Your task to perform on an android device: Open the calendar app, open the side menu, and click the "Day" option Image 0: 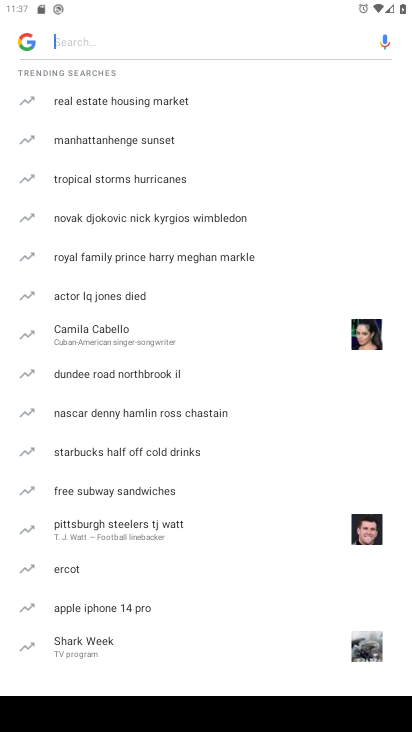
Step 0: press home button
Your task to perform on an android device: Open the calendar app, open the side menu, and click the "Day" option Image 1: 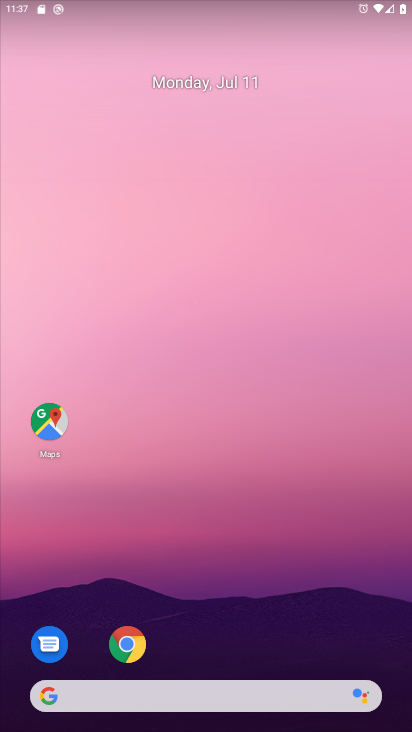
Step 1: drag from (273, 613) to (262, 108)
Your task to perform on an android device: Open the calendar app, open the side menu, and click the "Day" option Image 2: 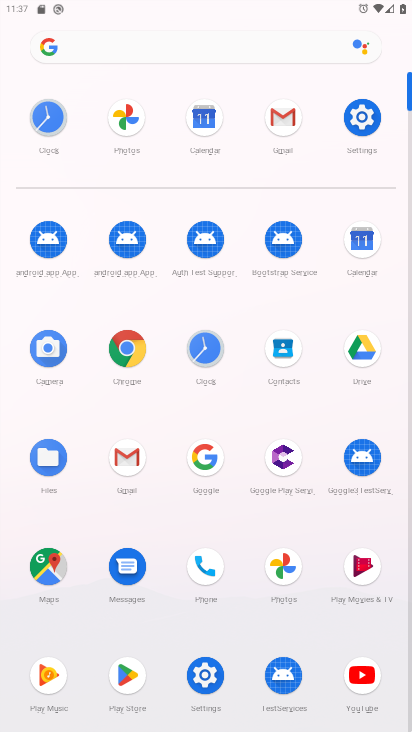
Step 2: click (370, 241)
Your task to perform on an android device: Open the calendar app, open the side menu, and click the "Day" option Image 3: 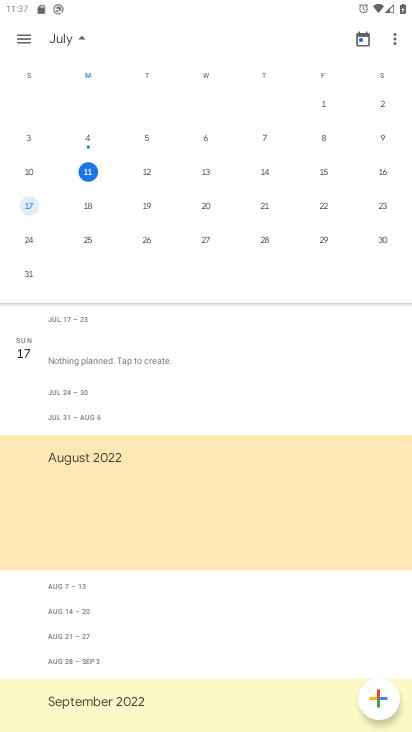
Step 3: click (26, 43)
Your task to perform on an android device: Open the calendar app, open the side menu, and click the "Day" option Image 4: 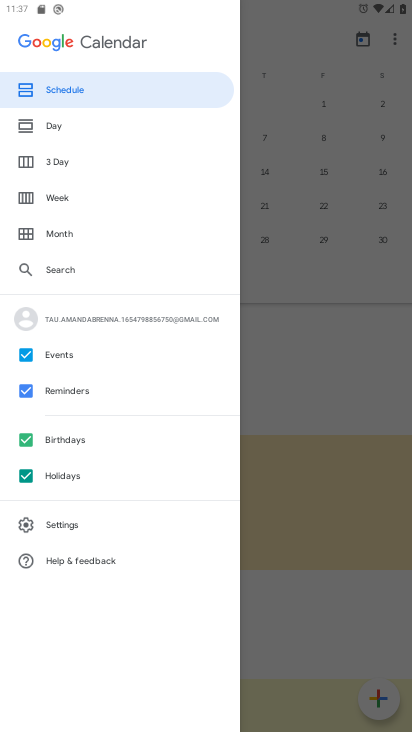
Step 4: click (60, 118)
Your task to perform on an android device: Open the calendar app, open the side menu, and click the "Day" option Image 5: 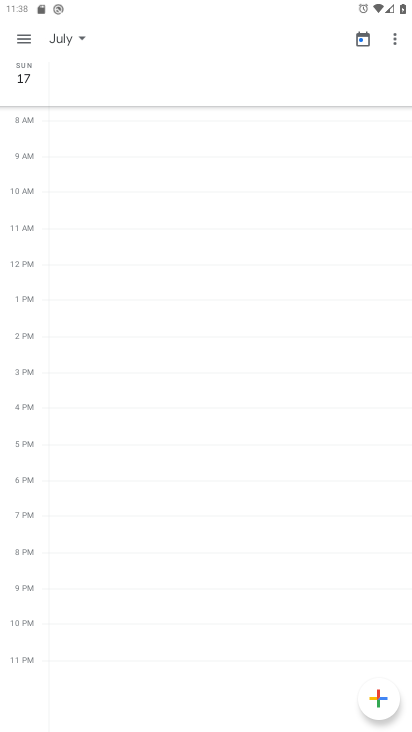
Step 5: task complete